Your task to perform on an android device: open device folders in google photos Image 0: 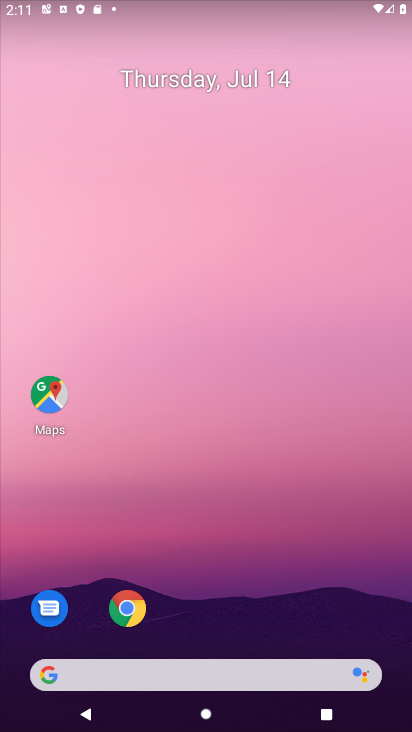
Step 0: drag from (383, 624) to (336, 122)
Your task to perform on an android device: open device folders in google photos Image 1: 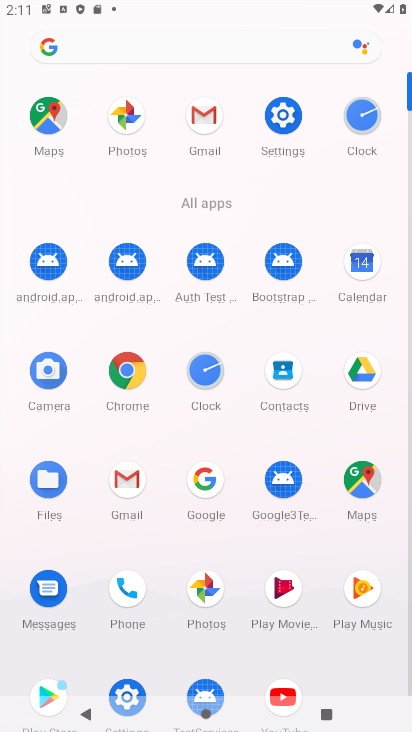
Step 1: click (203, 588)
Your task to perform on an android device: open device folders in google photos Image 2: 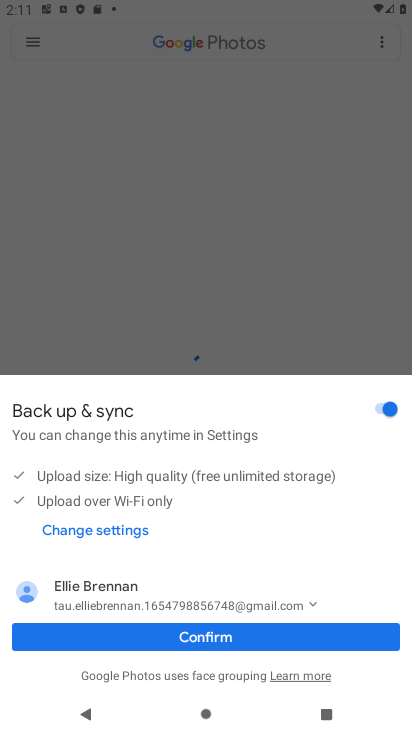
Step 2: click (191, 639)
Your task to perform on an android device: open device folders in google photos Image 3: 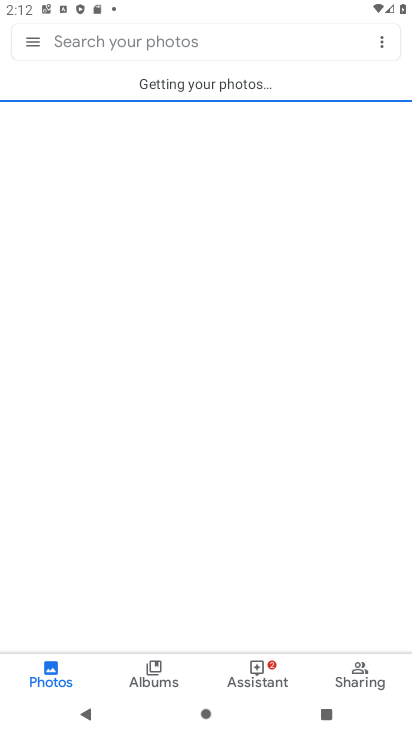
Step 3: click (32, 37)
Your task to perform on an android device: open device folders in google photos Image 4: 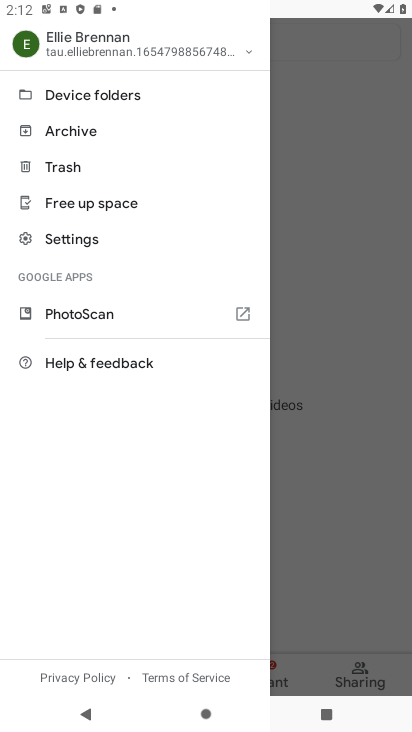
Step 4: click (68, 92)
Your task to perform on an android device: open device folders in google photos Image 5: 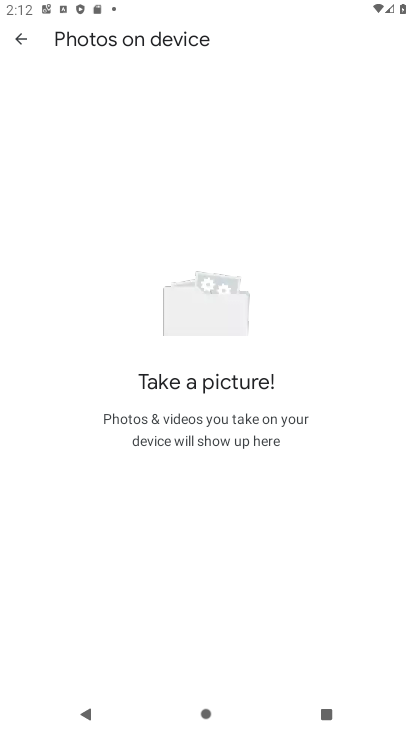
Step 5: task complete